Your task to perform on an android device: What's on my calendar tomorrow? Image 0: 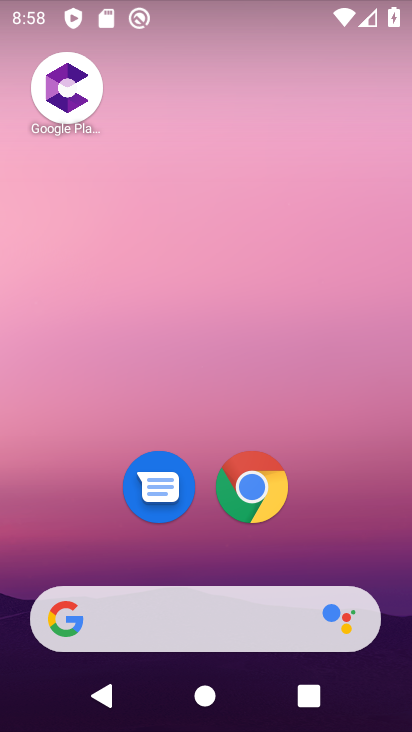
Step 0: drag from (317, 568) to (186, 43)
Your task to perform on an android device: What's on my calendar tomorrow? Image 1: 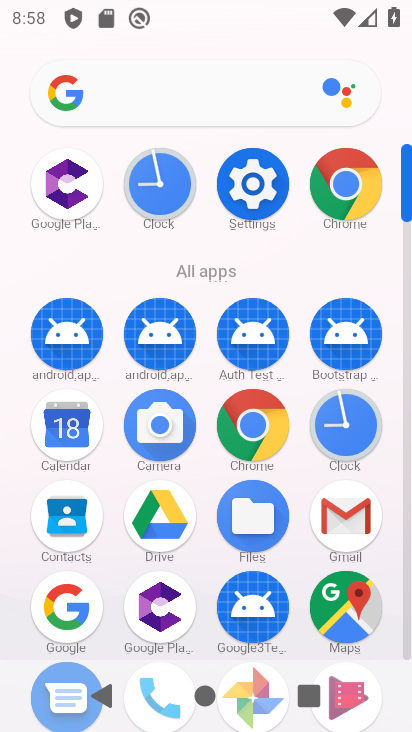
Step 1: drag from (179, 613) to (236, 296)
Your task to perform on an android device: What's on my calendar tomorrow? Image 2: 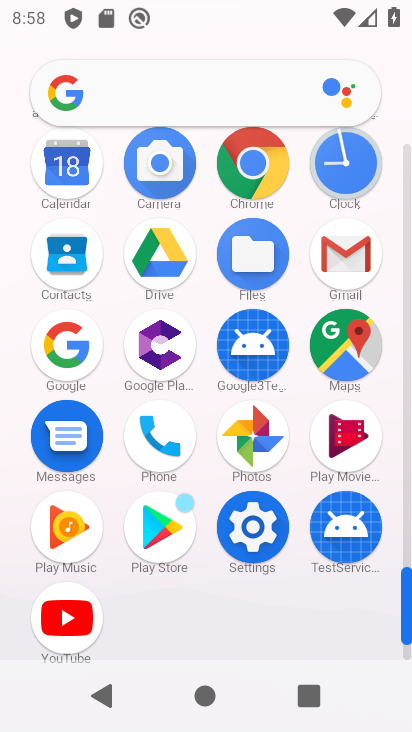
Step 2: click (86, 174)
Your task to perform on an android device: What's on my calendar tomorrow? Image 3: 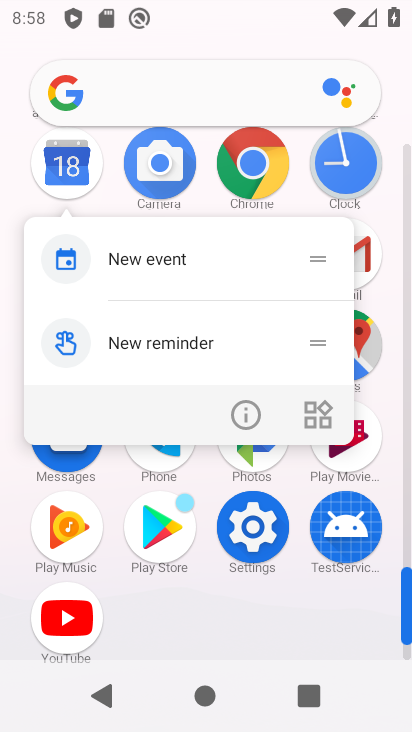
Step 3: click (84, 177)
Your task to perform on an android device: What's on my calendar tomorrow? Image 4: 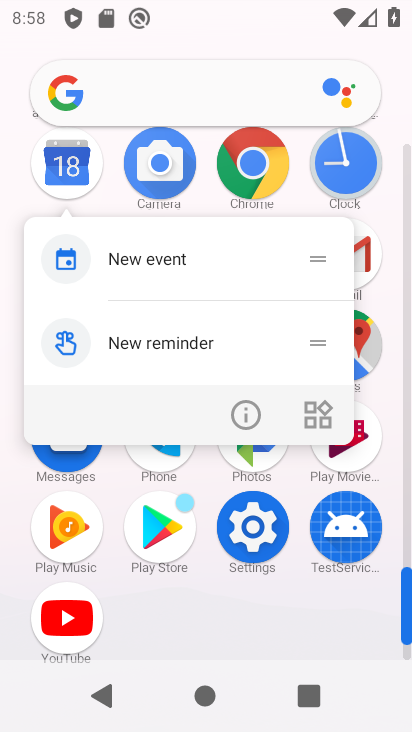
Step 4: click (84, 177)
Your task to perform on an android device: What's on my calendar tomorrow? Image 5: 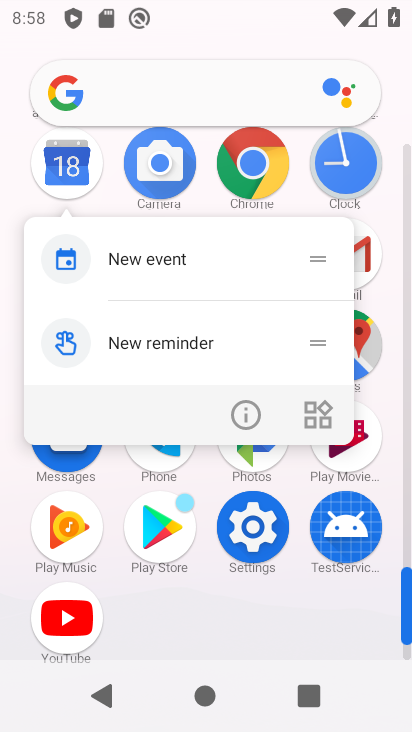
Step 5: click (84, 177)
Your task to perform on an android device: What's on my calendar tomorrow? Image 6: 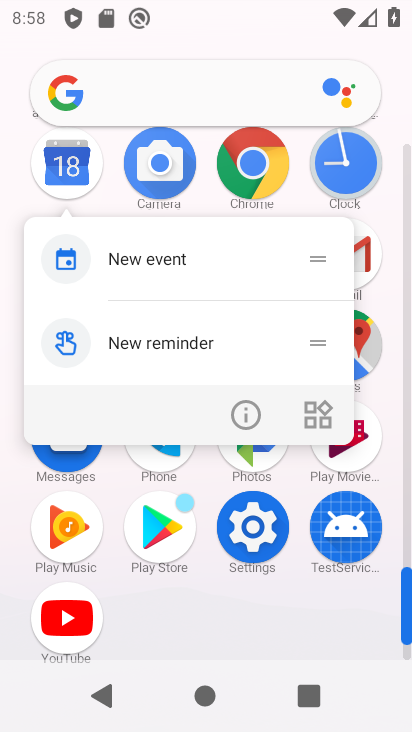
Step 6: click (84, 177)
Your task to perform on an android device: What's on my calendar tomorrow? Image 7: 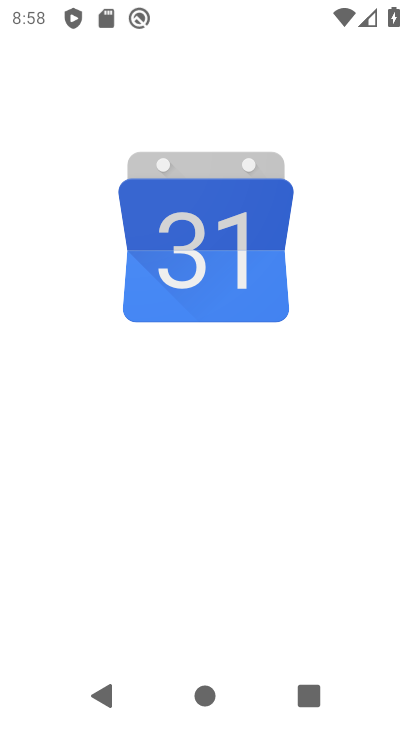
Step 7: click (84, 177)
Your task to perform on an android device: What's on my calendar tomorrow? Image 8: 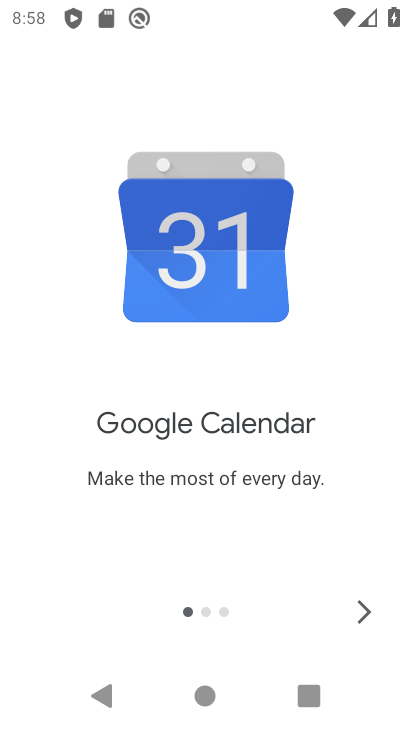
Step 8: click (373, 617)
Your task to perform on an android device: What's on my calendar tomorrow? Image 9: 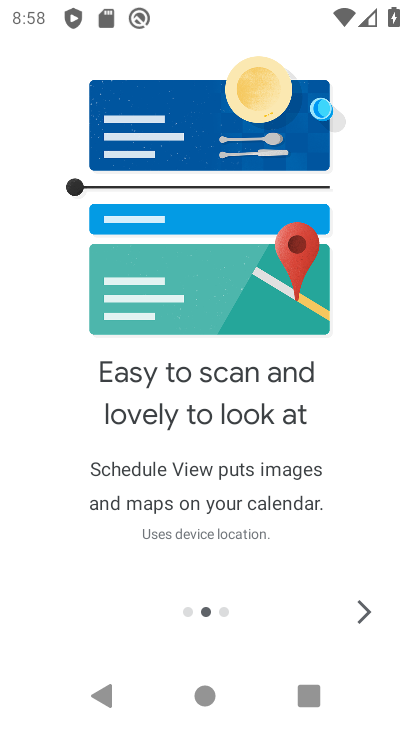
Step 9: click (373, 617)
Your task to perform on an android device: What's on my calendar tomorrow? Image 10: 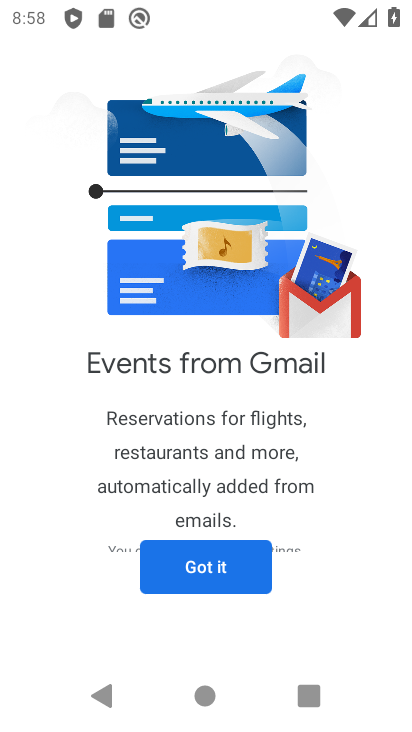
Step 10: click (212, 568)
Your task to perform on an android device: What's on my calendar tomorrow? Image 11: 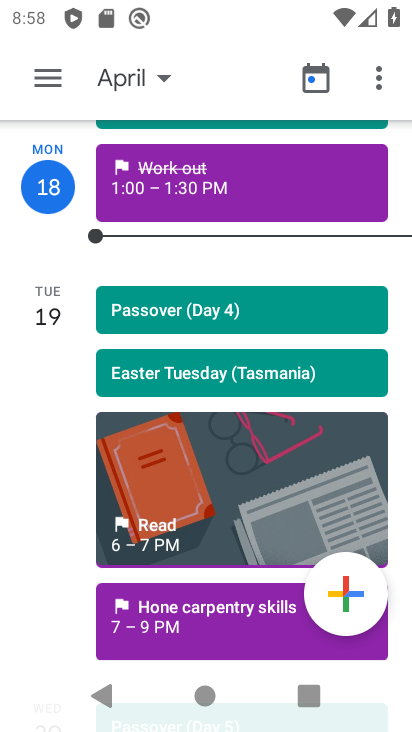
Step 11: task complete